Your task to perform on an android device: Check the news Image 0: 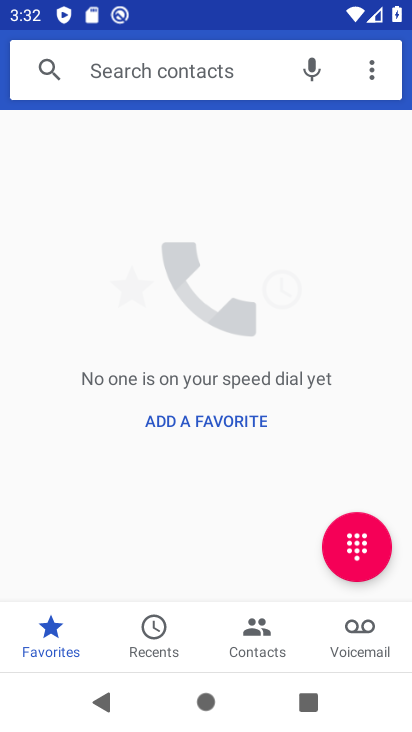
Step 0: press back button
Your task to perform on an android device: Check the news Image 1: 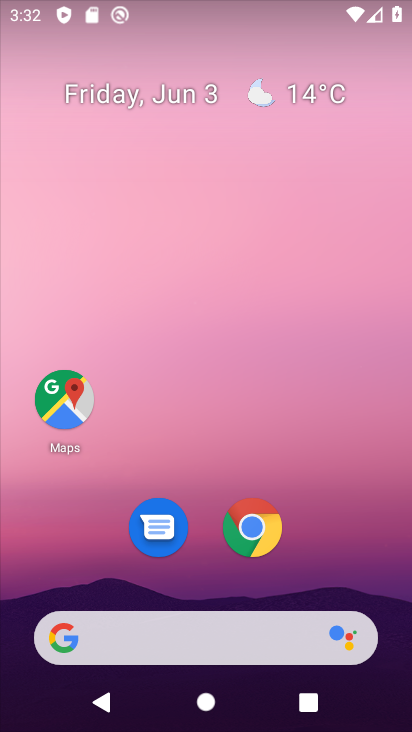
Step 1: drag from (336, 559) to (258, 52)
Your task to perform on an android device: Check the news Image 2: 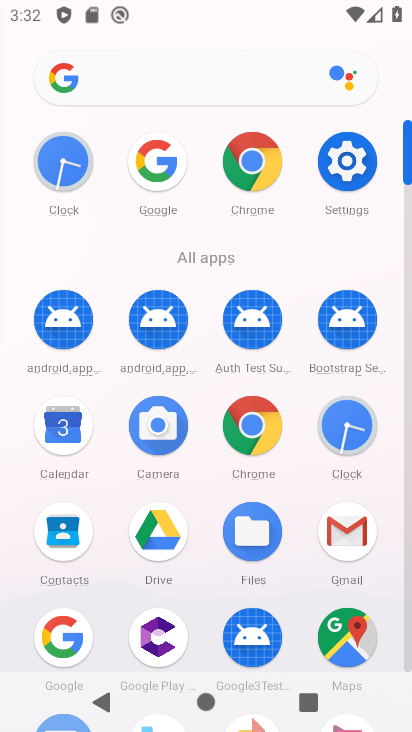
Step 2: click (153, 160)
Your task to perform on an android device: Check the news Image 3: 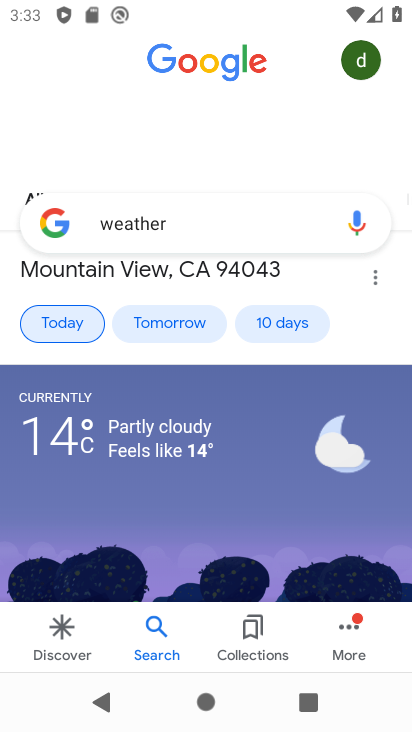
Step 3: click (285, 217)
Your task to perform on an android device: Check the news Image 4: 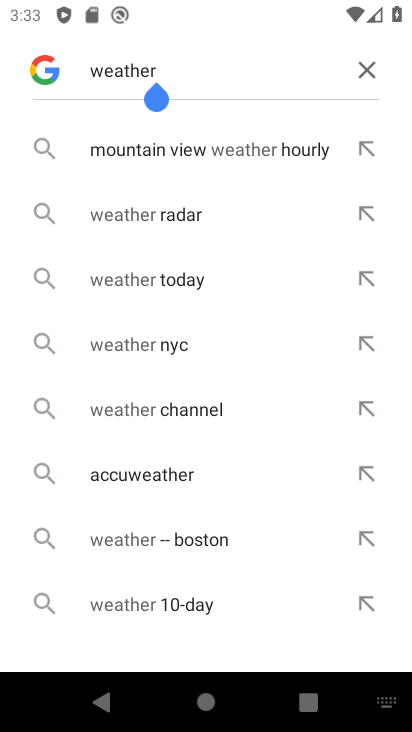
Step 4: click (372, 68)
Your task to perform on an android device: Check the news Image 5: 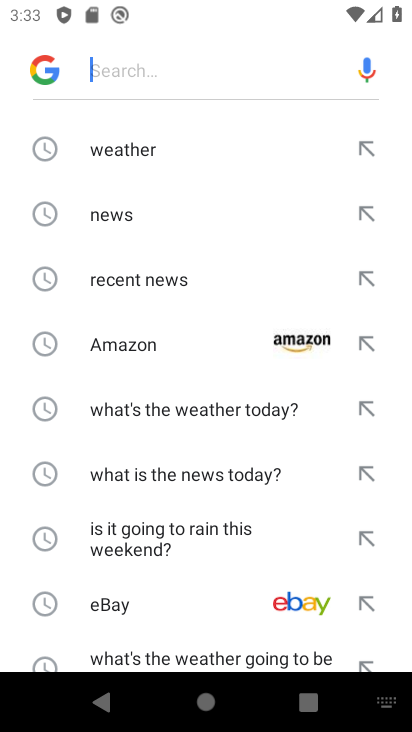
Step 5: type "news"
Your task to perform on an android device: Check the news Image 6: 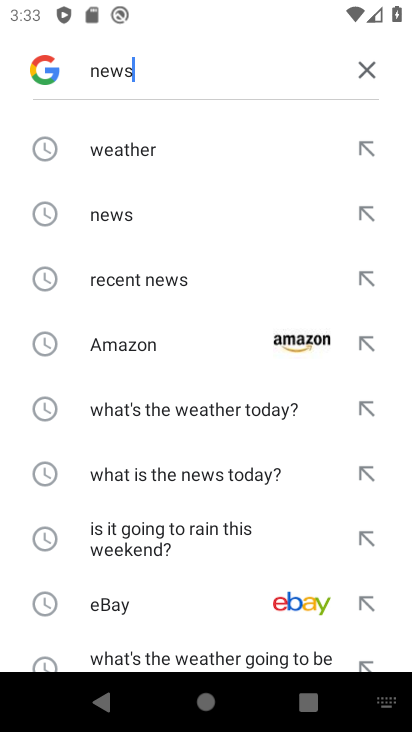
Step 6: type ""
Your task to perform on an android device: Check the news Image 7: 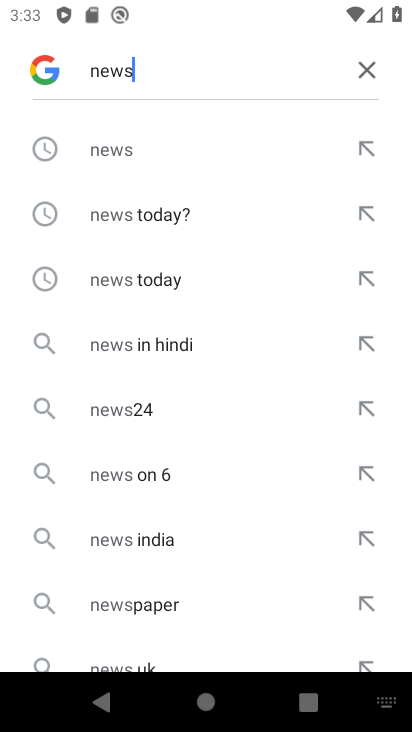
Step 7: click (139, 150)
Your task to perform on an android device: Check the news Image 8: 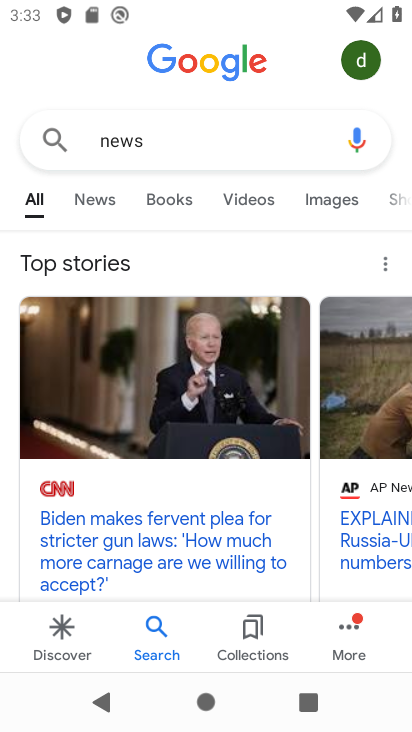
Step 8: drag from (226, 490) to (258, 385)
Your task to perform on an android device: Check the news Image 9: 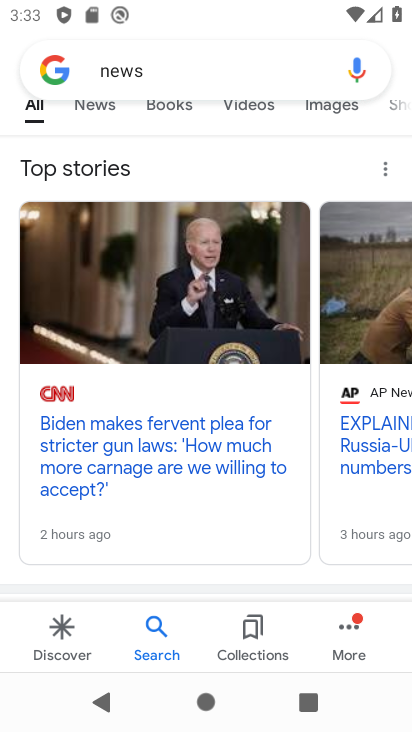
Step 9: click (159, 473)
Your task to perform on an android device: Check the news Image 10: 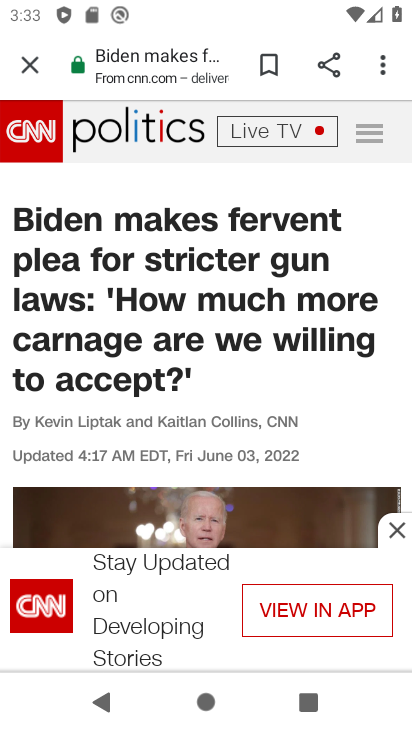
Step 10: task complete